Your task to perform on an android device: Show me the alarms in the clock app Image 0: 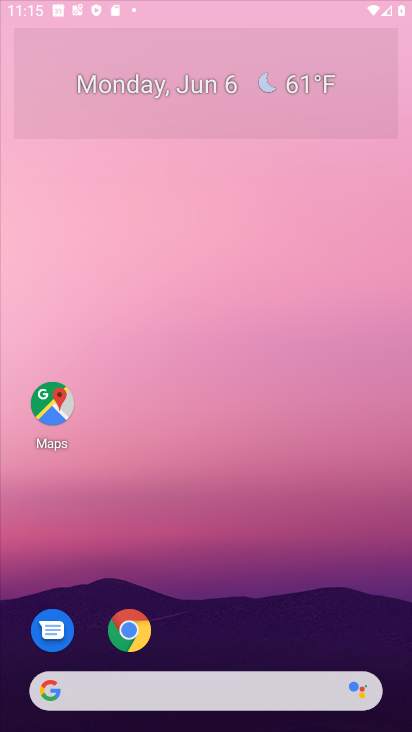
Step 0: click (310, 61)
Your task to perform on an android device: Show me the alarms in the clock app Image 1: 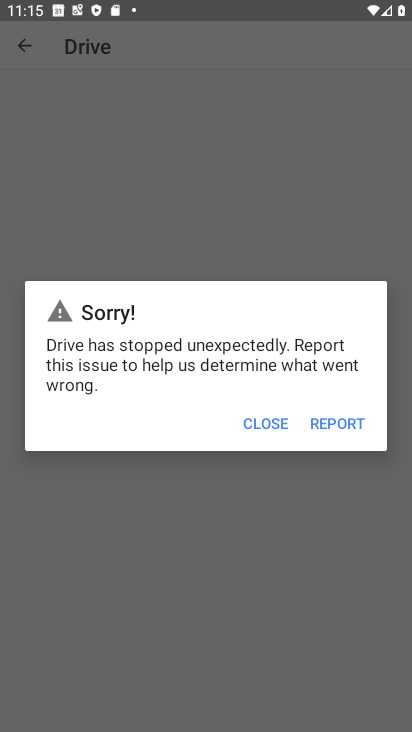
Step 1: press home button
Your task to perform on an android device: Show me the alarms in the clock app Image 2: 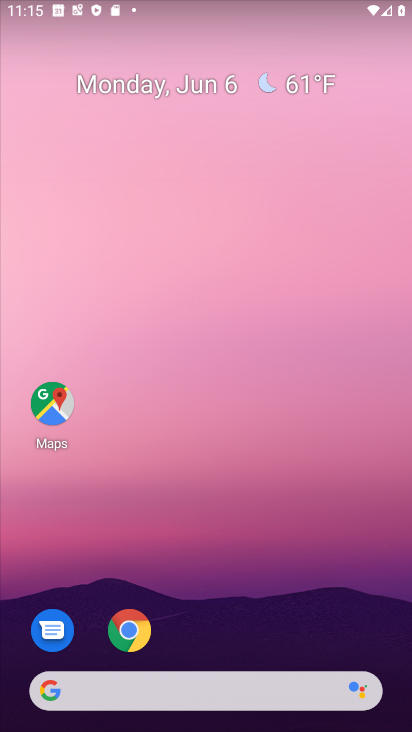
Step 2: drag from (323, 509) to (327, 99)
Your task to perform on an android device: Show me the alarms in the clock app Image 3: 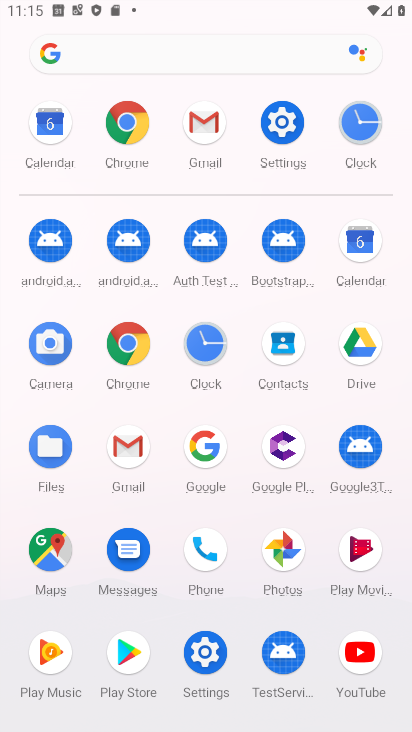
Step 3: click (213, 351)
Your task to perform on an android device: Show me the alarms in the clock app Image 4: 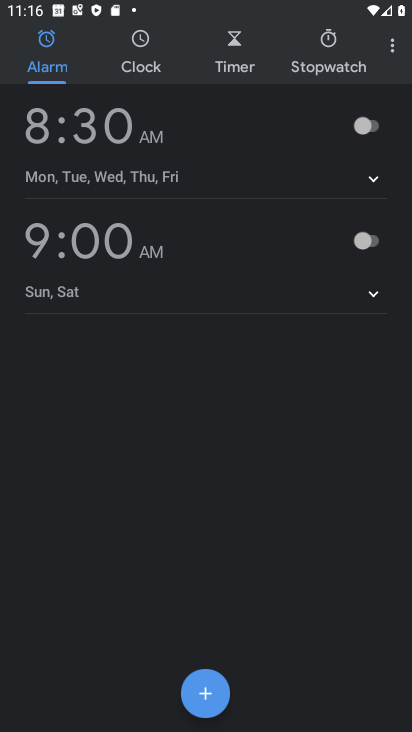
Step 4: task complete